Your task to perform on an android device: toggle wifi Image 0: 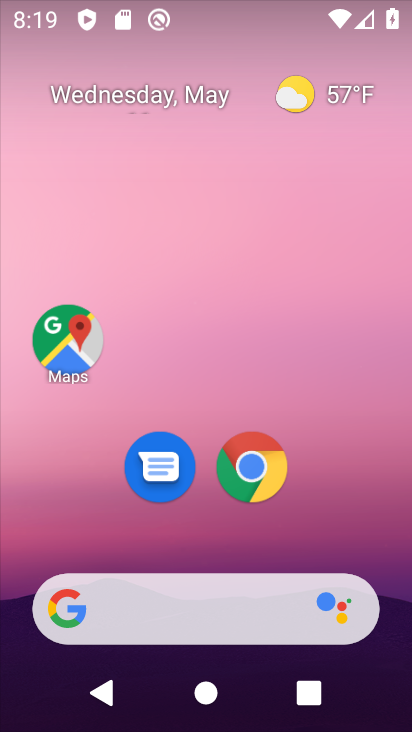
Step 0: drag from (356, 561) to (2, 118)
Your task to perform on an android device: toggle wifi Image 1: 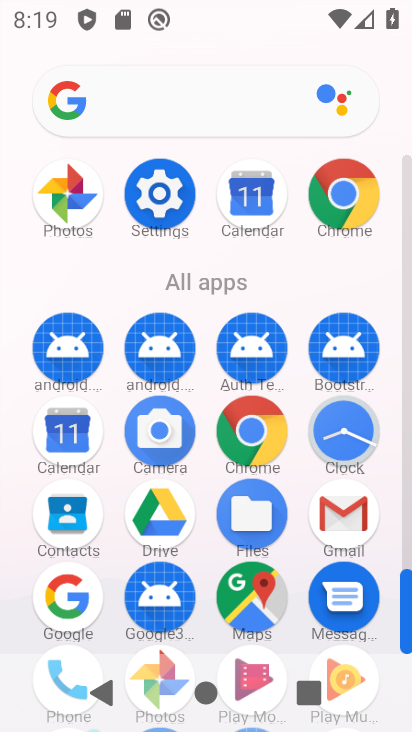
Step 1: drag from (340, 516) to (242, 31)
Your task to perform on an android device: toggle wifi Image 2: 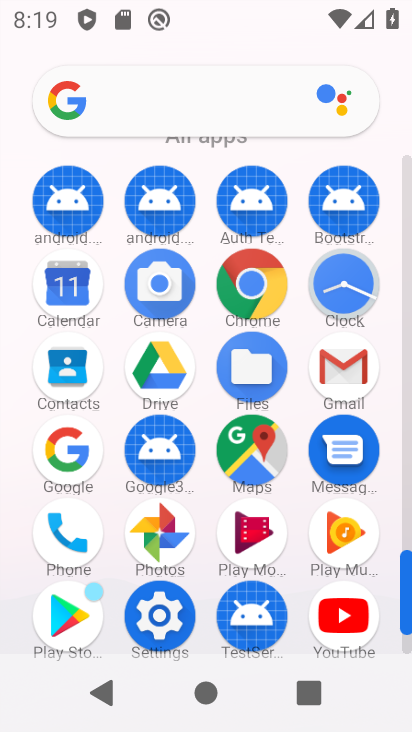
Step 2: click (170, 608)
Your task to perform on an android device: toggle wifi Image 3: 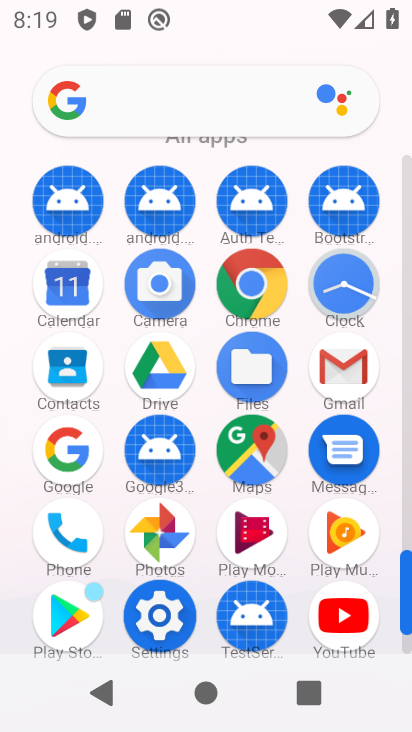
Step 3: click (169, 609)
Your task to perform on an android device: toggle wifi Image 4: 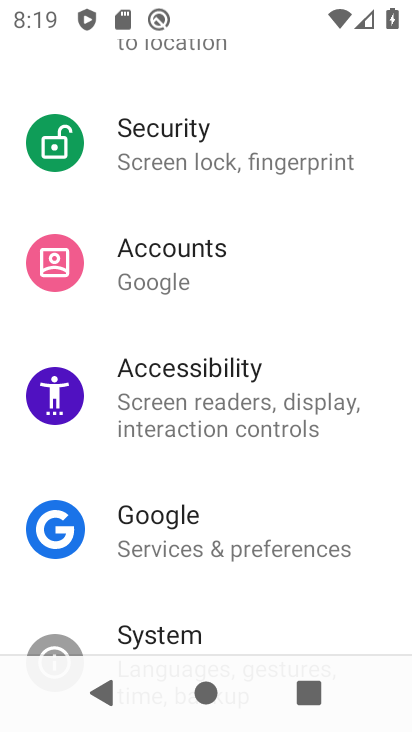
Step 4: drag from (163, 171) to (241, 494)
Your task to perform on an android device: toggle wifi Image 5: 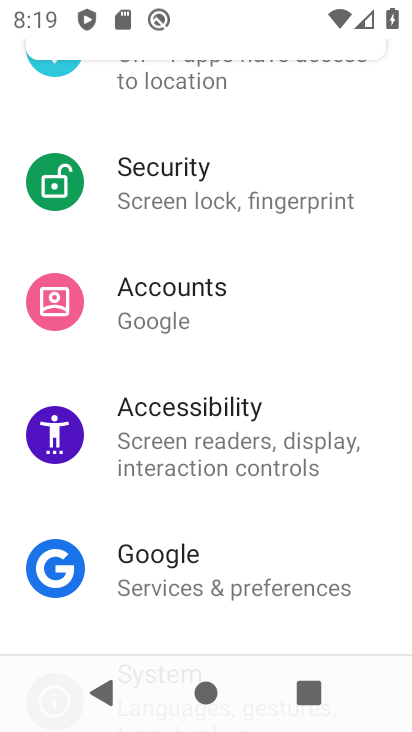
Step 5: drag from (171, 197) to (155, 468)
Your task to perform on an android device: toggle wifi Image 6: 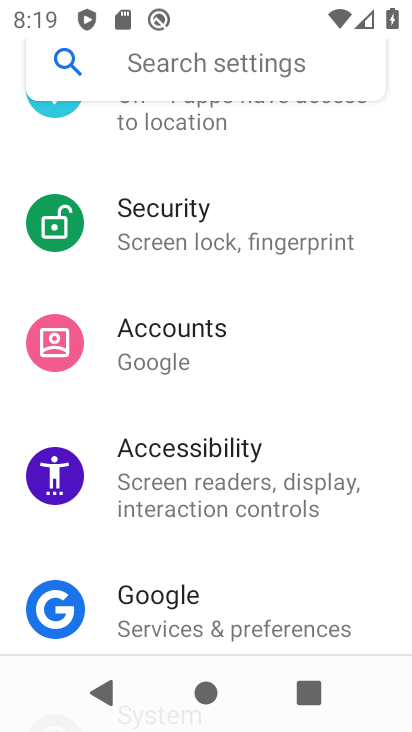
Step 6: drag from (126, 259) to (194, 641)
Your task to perform on an android device: toggle wifi Image 7: 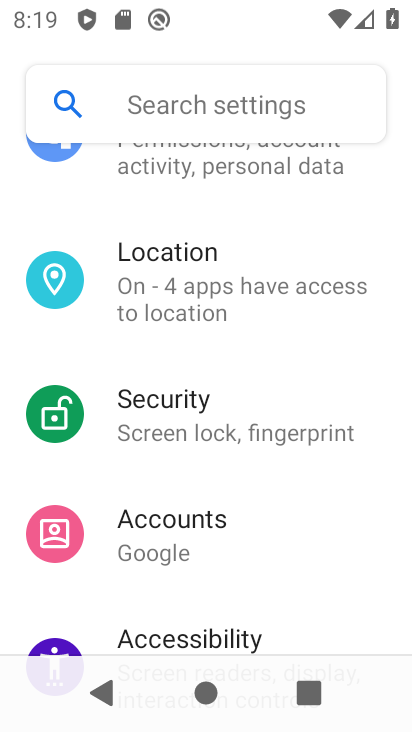
Step 7: drag from (172, 208) to (171, 671)
Your task to perform on an android device: toggle wifi Image 8: 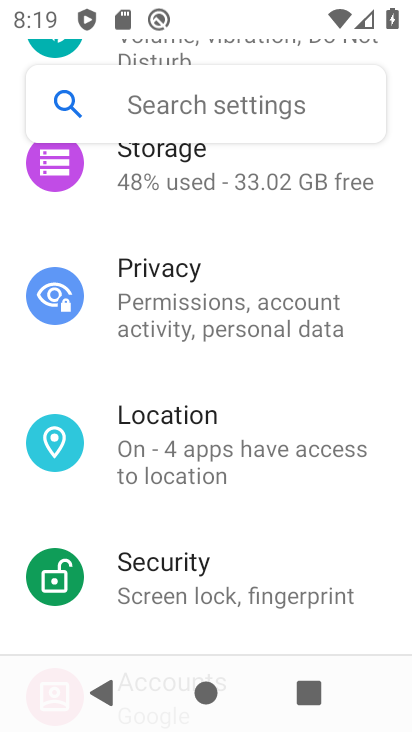
Step 8: drag from (137, 412) to (137, 666)
Your task to perform on an android device: toggle wifi Image 9: 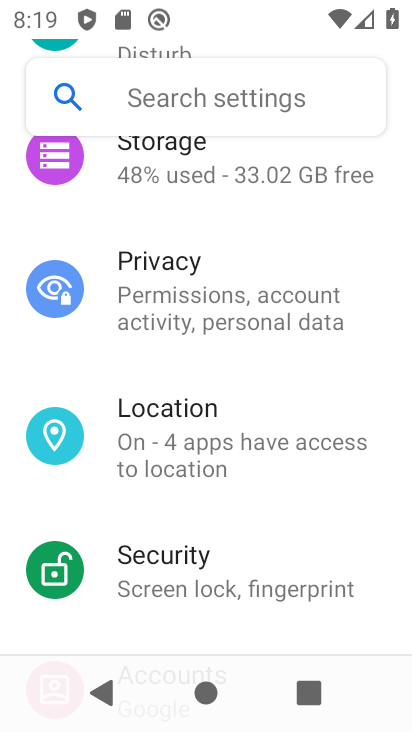
Step 9: drag from (153, 347) to (186, 584)
Your task to perform on an android device: toggle wifi Image 10: 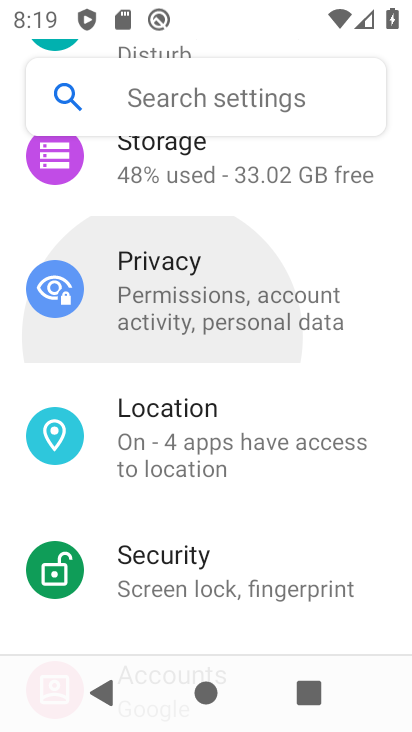
Step 10: drag from (206, 356) to (224, 648)
Your task to perform on an android device: toggle wifi Image 11: 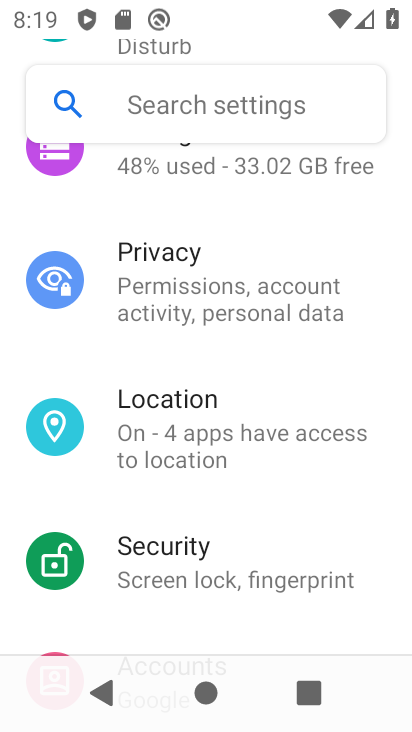
Step 11: drag from (162, 480) to (179, 641)
Your task to perform on an android device: toggle wifi Image 12: 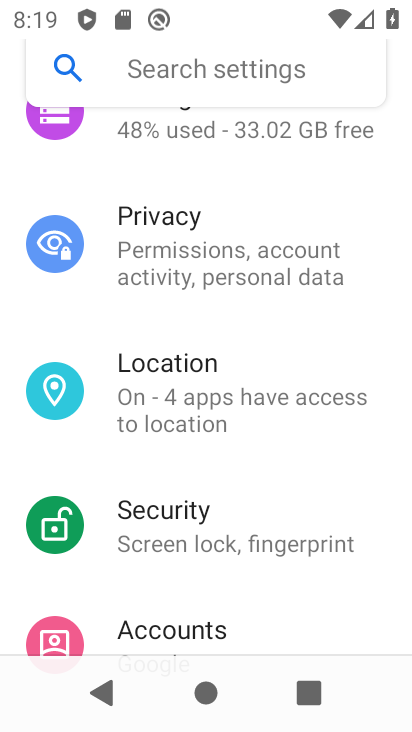
Step 12: drag from (183, 209) to (117, 640)
Your task to perform on an android device: toggle wifi Image 13: 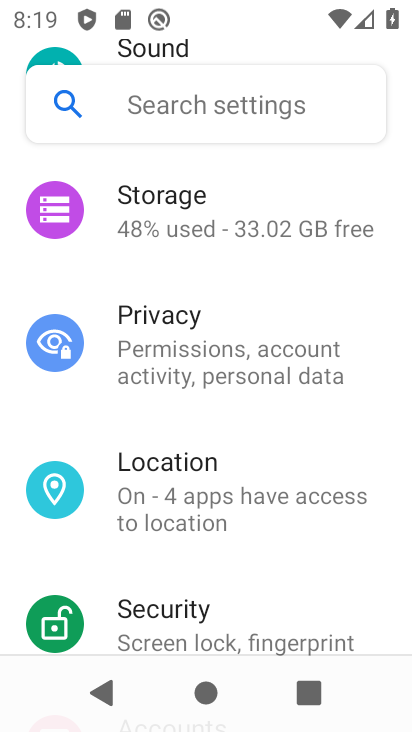
Step 13: drag from (157, 241) to (224, 641)
Your task to perform on an android device: toggle wifi Image 14: 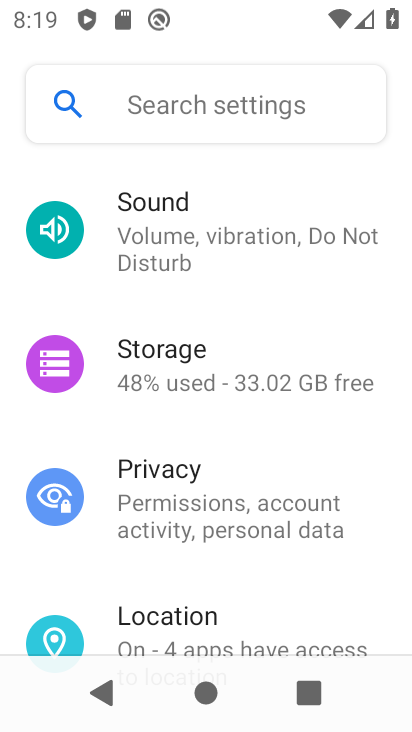
Step 14: drag from (269, 175) to (267, 502)
Your task to perform on an android device: toggle wifi Image 15: 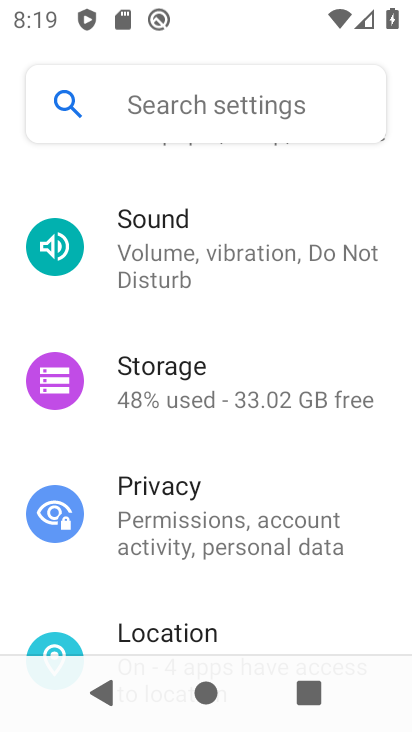
Step 15: drag from (200, 217) to (197, 581)
Your task to perform on an android device: toggle wifi Image 16: 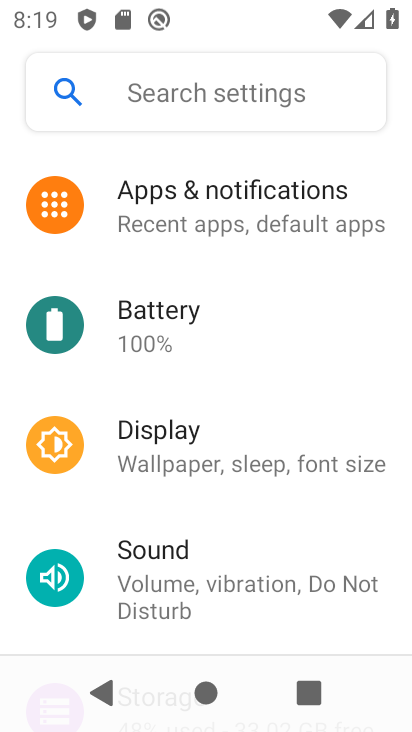
Step 16: drag from (191, 163) to (191, 472)
Your task to perform on an android device: toggle wifi Image 17: 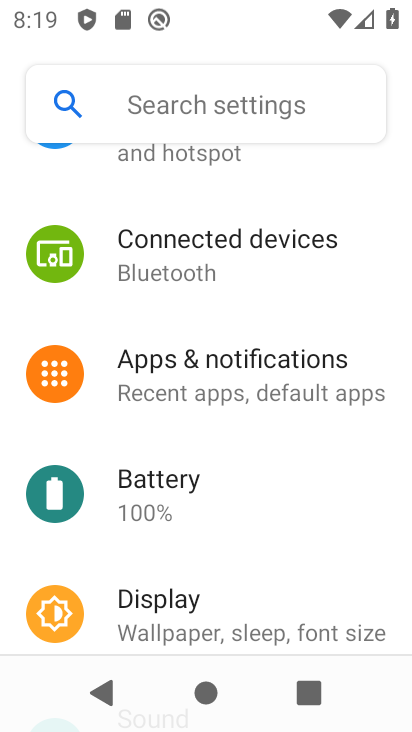
Step 17: drag from (186, 212) to (180, 569)
Your task to perform on an android device: toggle wifi Image 18: 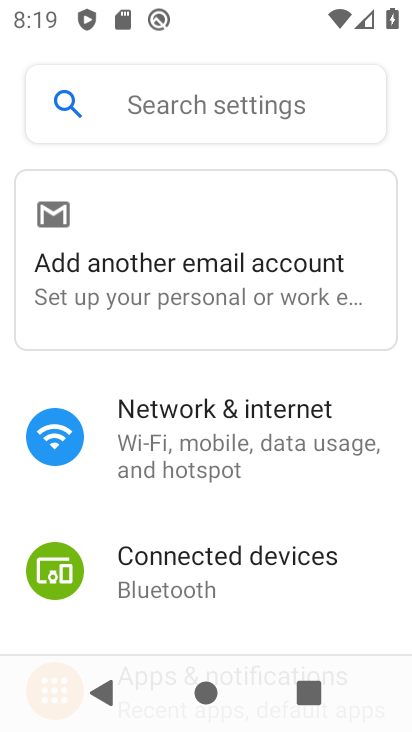
Step 18: drag from (160, 301) to (178, 518)
Your task to perform on an android device: toggle wifi Image 19: 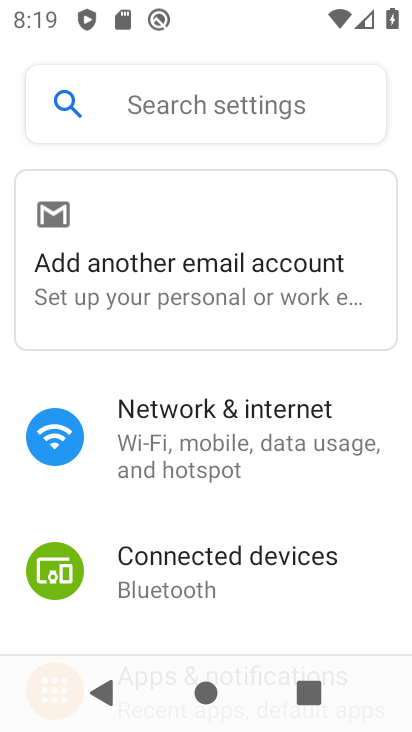
Step 19: click (186, 424)
Your task to perform on an android device: toggle wifi Image 20: 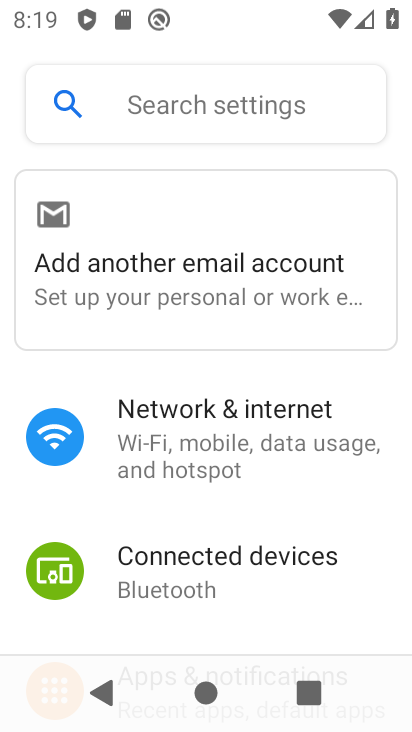
Step 20: click (191, 453)
Your task to perform on an android device: toggle wifi Image 21: 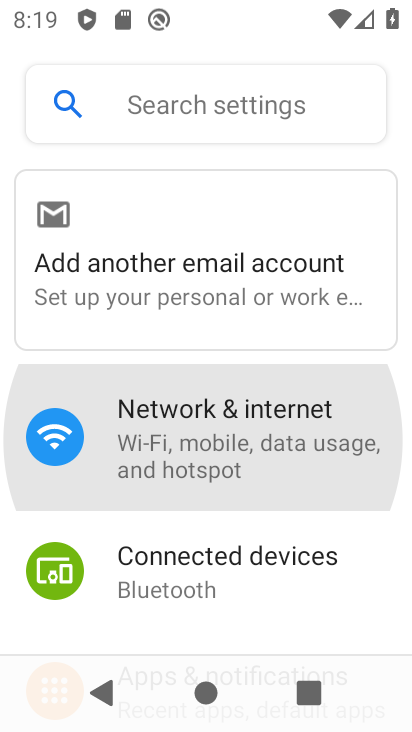
Step 21: click (191, 454)
Your task to perform on an android device: toggle wifi Image 22: 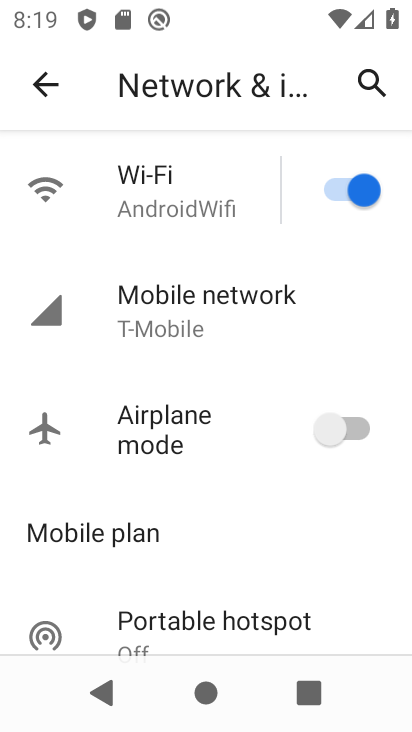
Step 22: click (351, 187)
Your task to perform on an android device: toggle wifi Image 23: 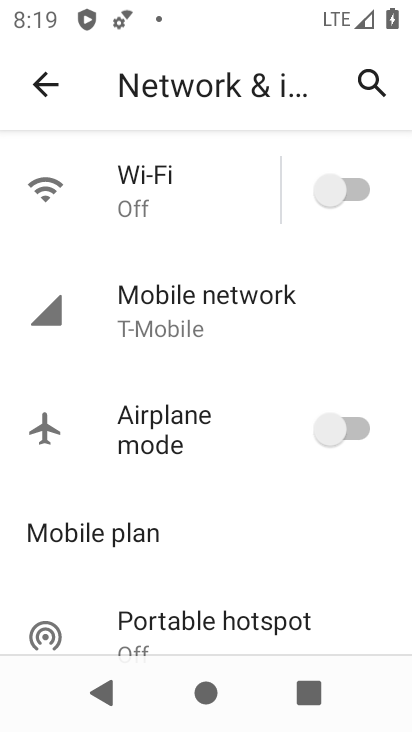
Step 23: task complete